Your task to perform on an android device: Open Maps and search for coffee Image 0: 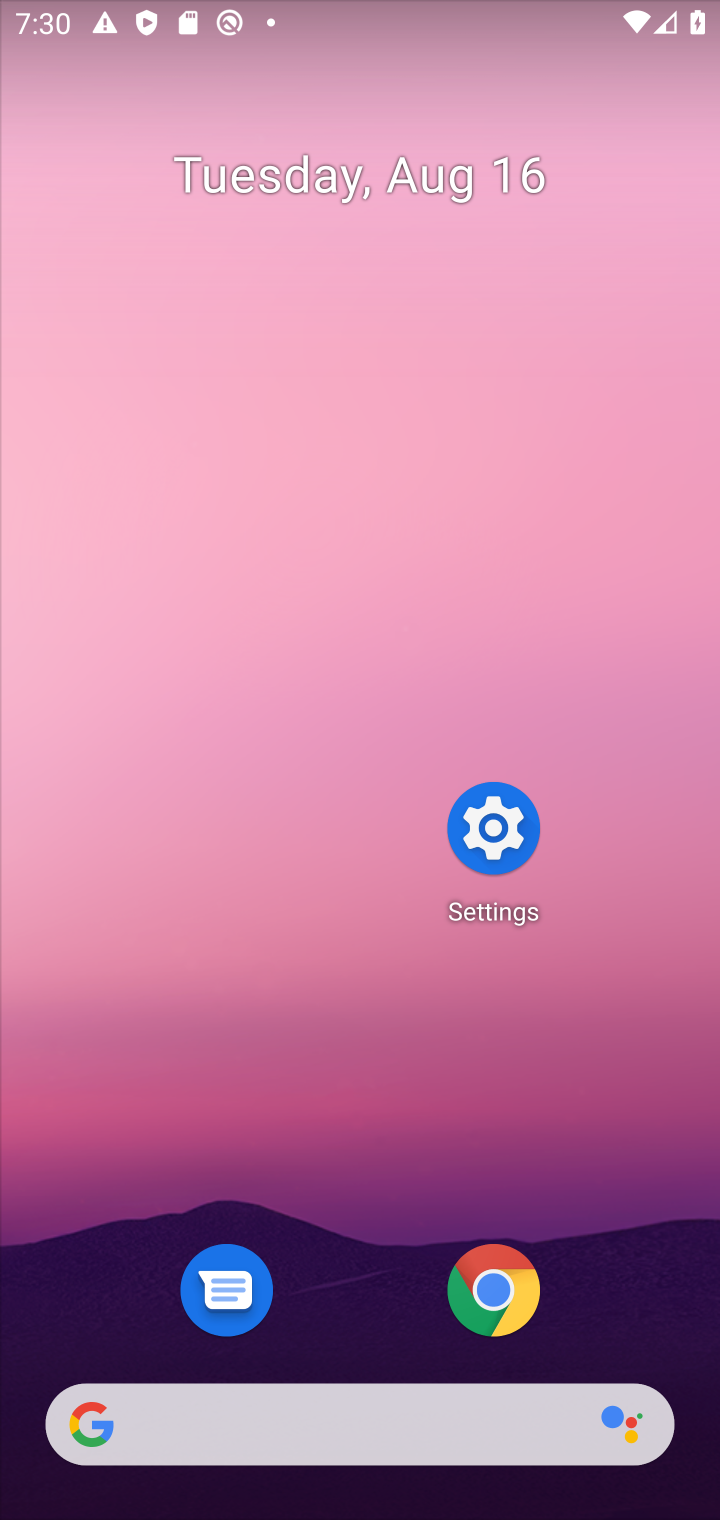
Step 0: press home button
Your task to perform on an android device: Open Maps and search for coffee Image 1: 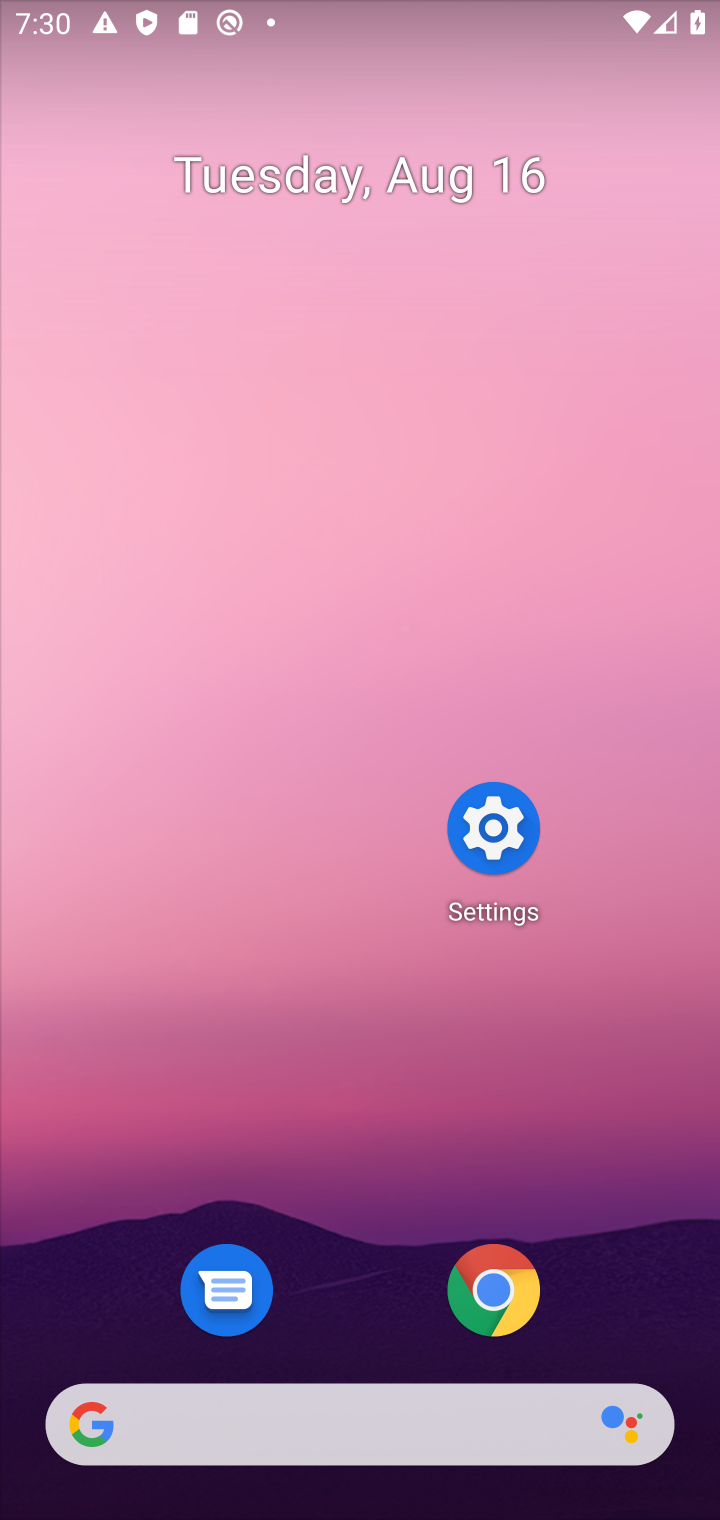
Step 1: drag from (419, 1437) to (478, 293)
Your task to perform on an android device: Open Maps and search for coffee Image 2: 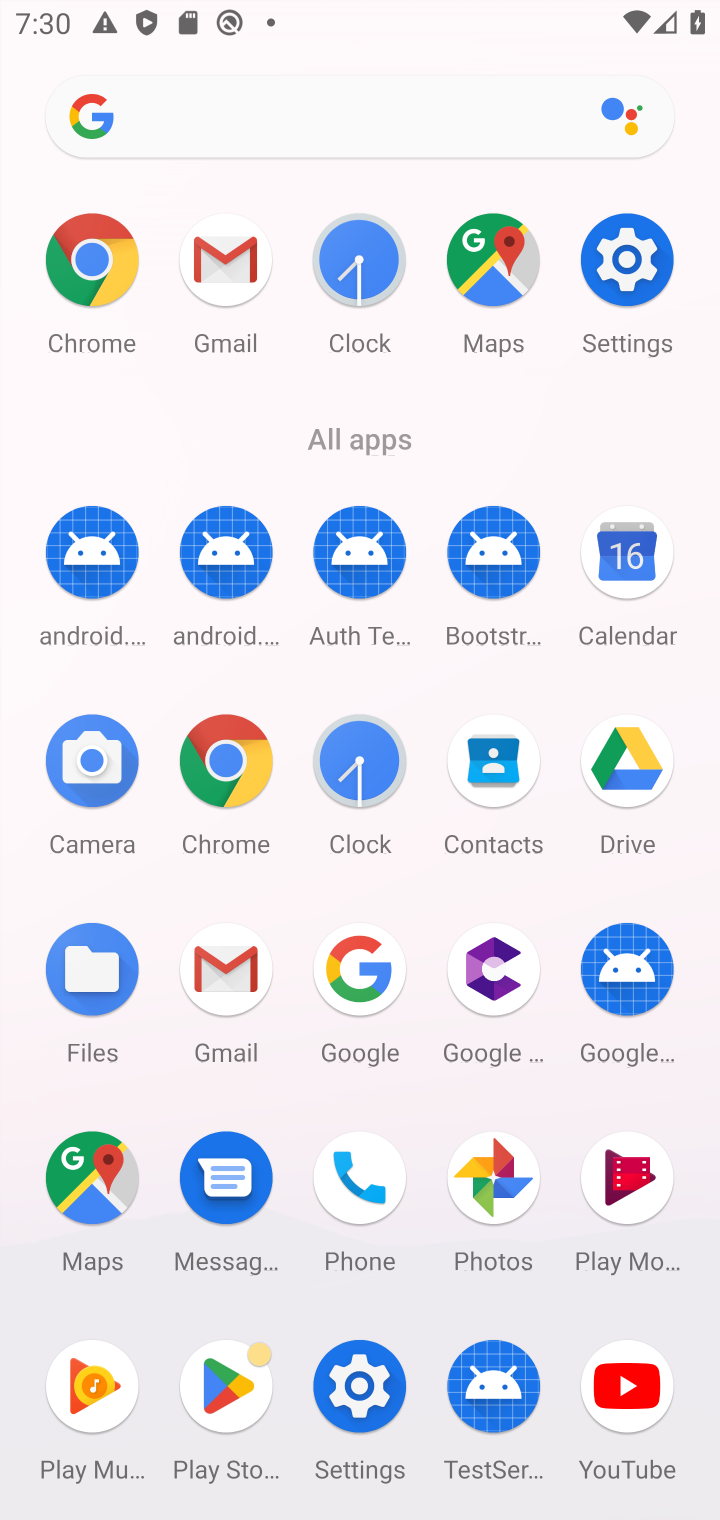
Step 2: drag from (476, 254) to (160, 834)
Your task to perform on an android device: Open Maps and search for coffee Image 3: 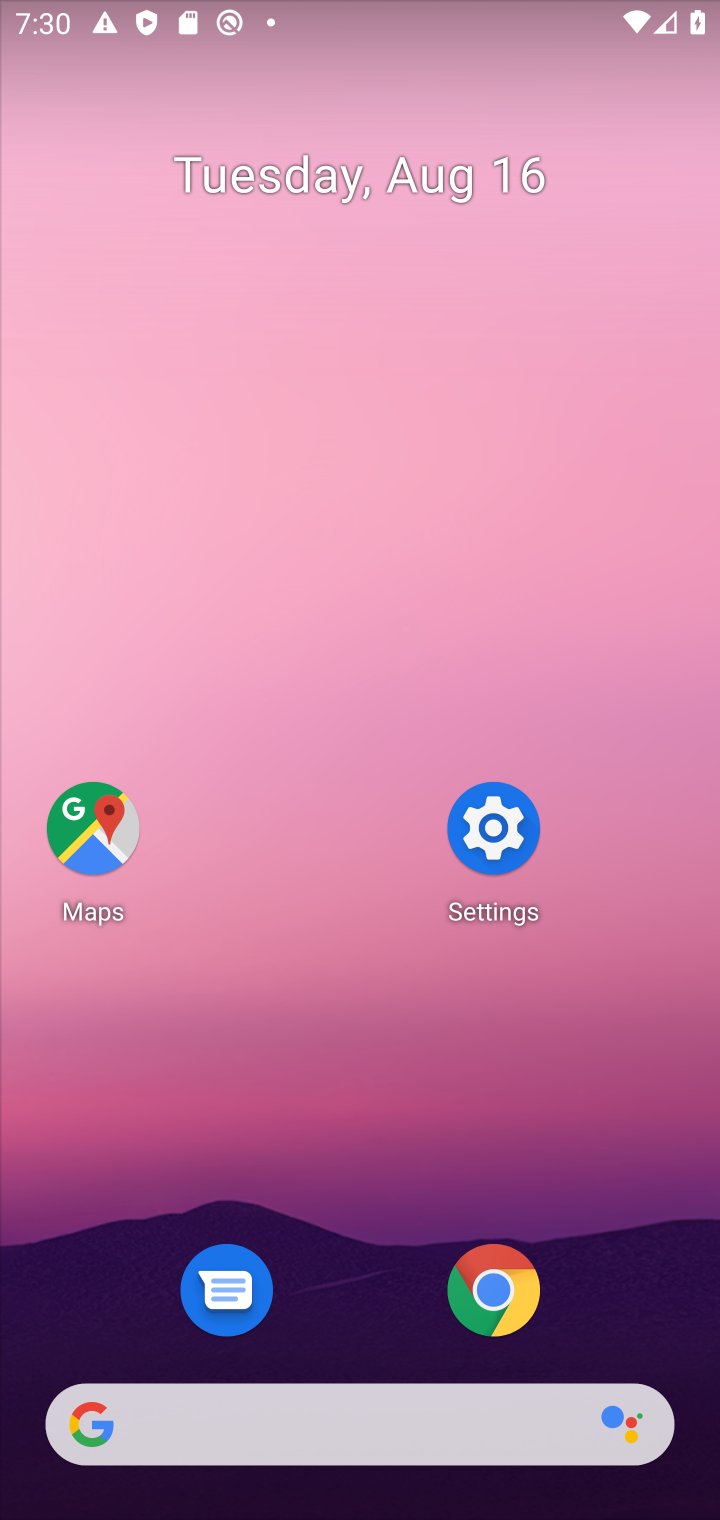
Step 3: click (86, 843)
Your task to perform on an android device: Open Maps and search for coffee Image 4: 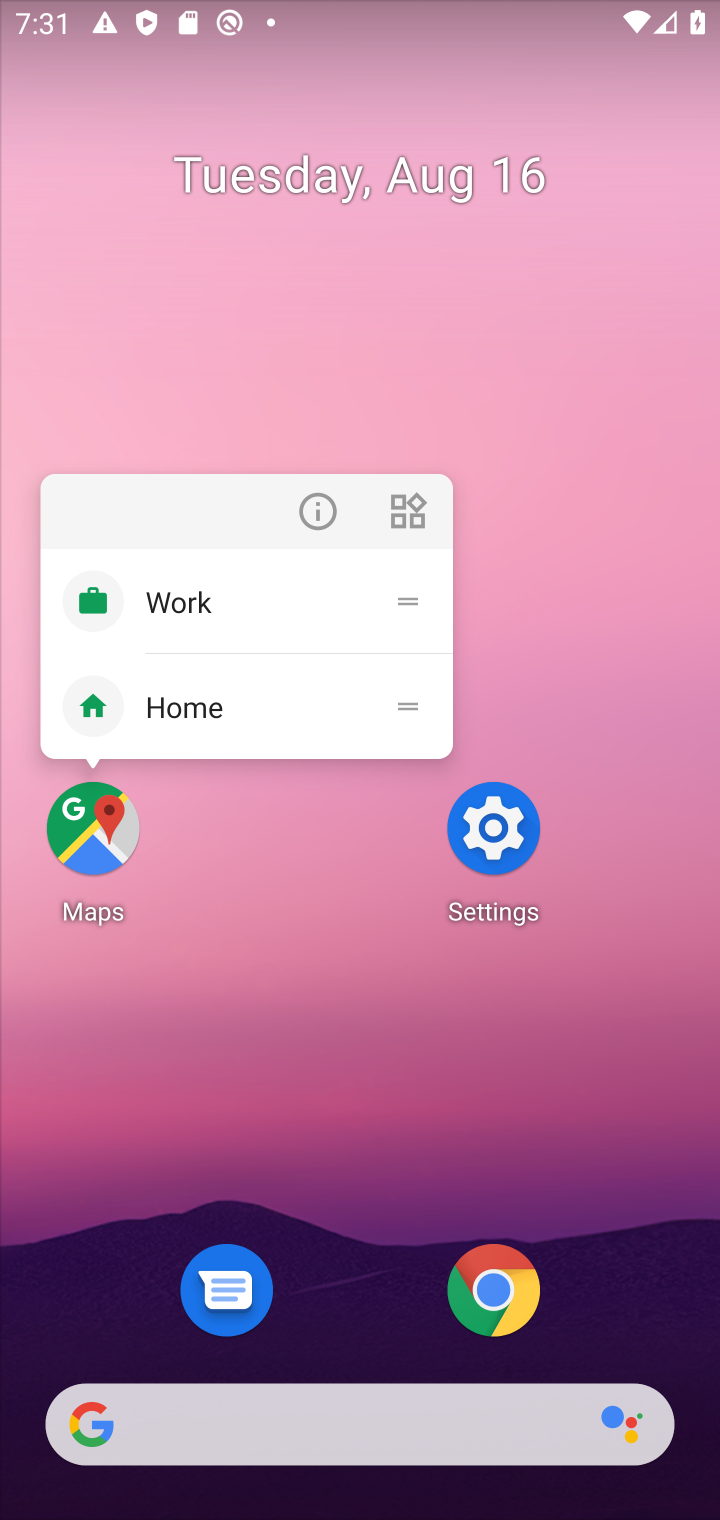
Step 4: click (104, 823)
Your task to perform on an android device: Open Maps and search for coffee Image 5: 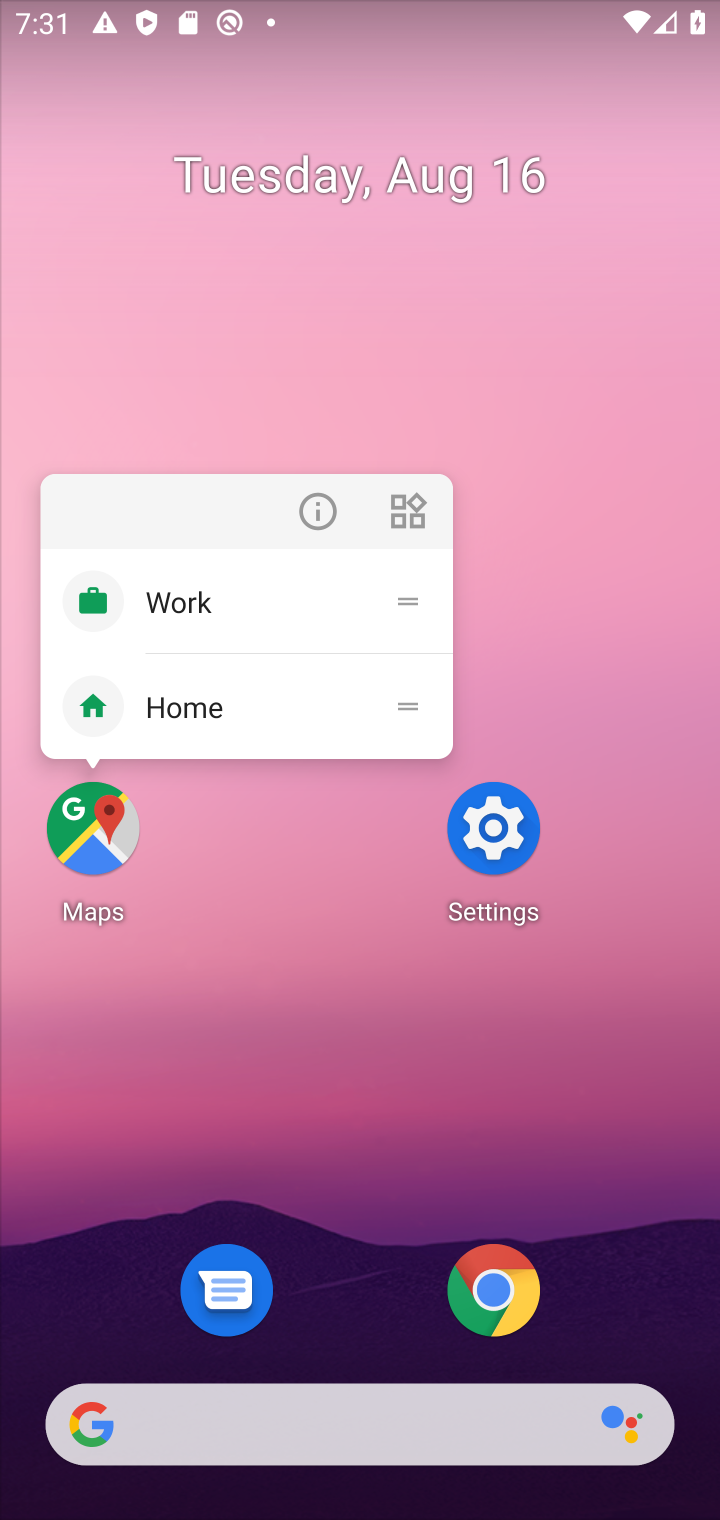
Step 5: click (78, 850)
Your task to perform on an android device: Open Maps and search for coffee Image 6: 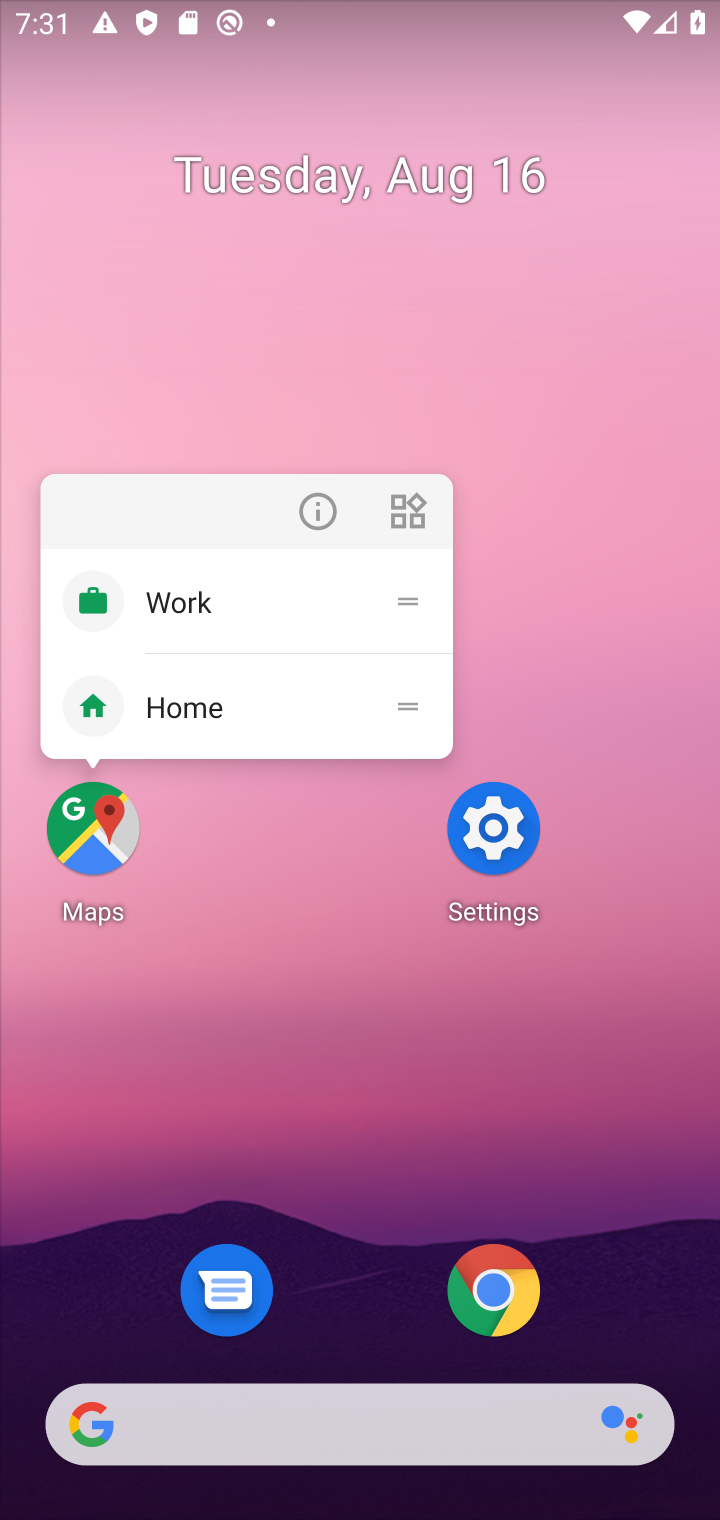
Step 6: click (88, 826)
Your task to perform on an android device: Open Maps and search for coffee Image 7: 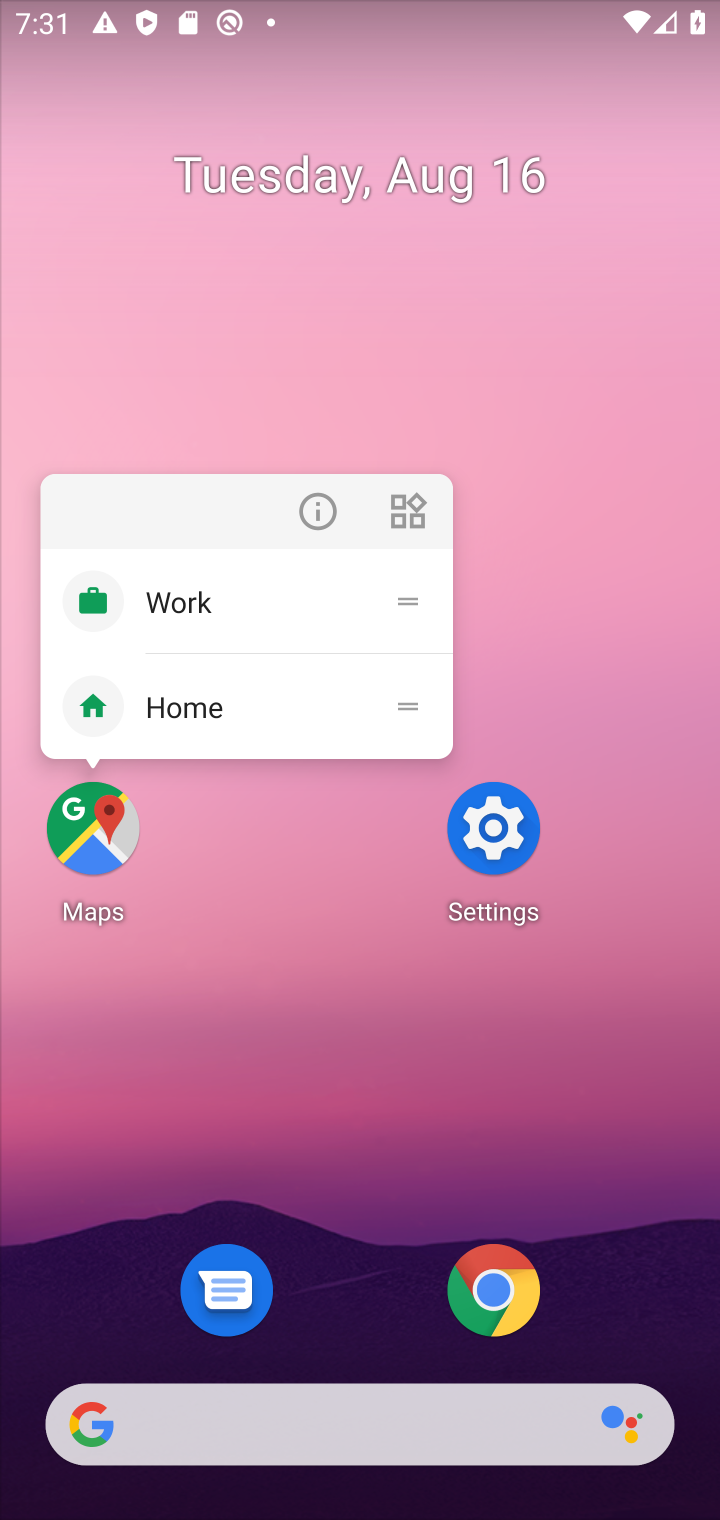
Step 7: click (76, 844)
Your task to perform on an android device: Open Maps and search for coffee Image 8: 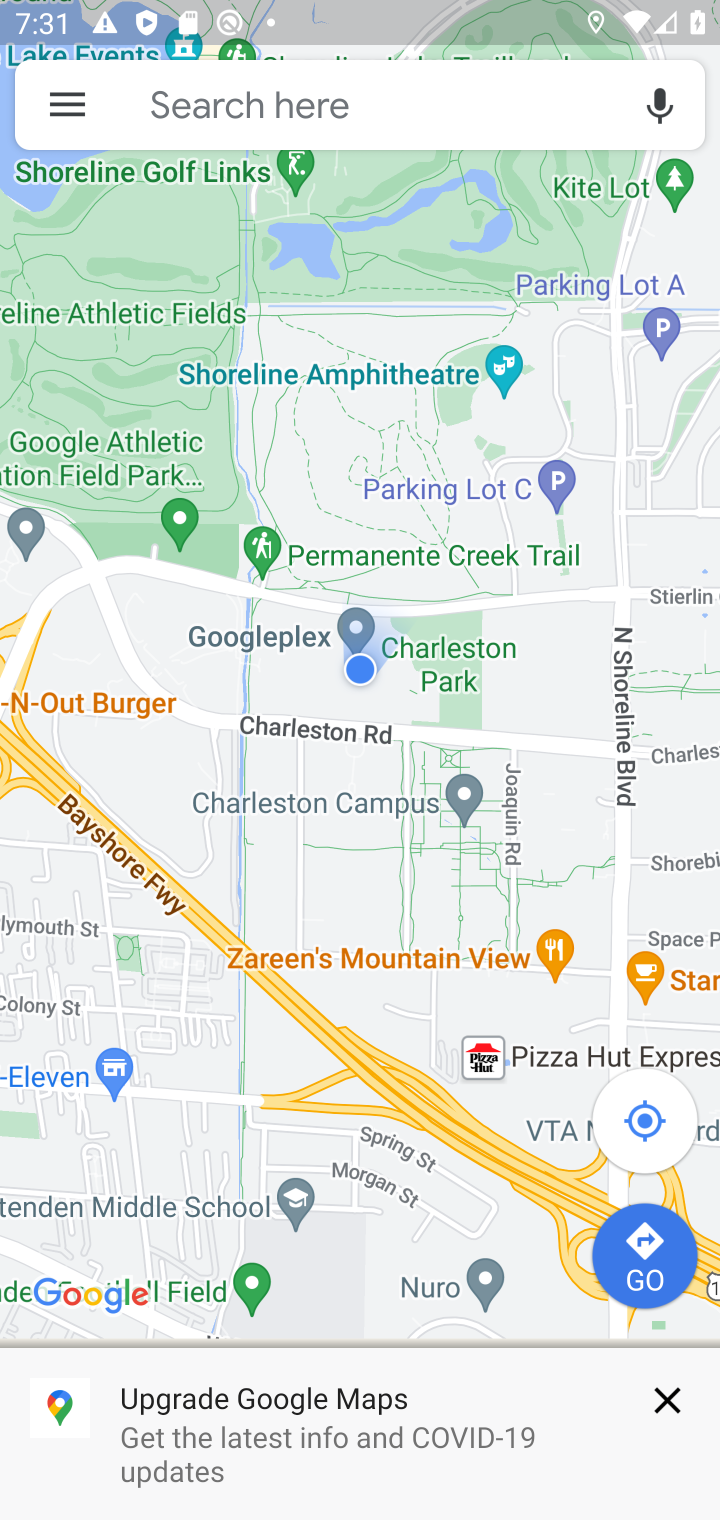
Step 8: click (370, 115)
Your task to perform on an android device: Open Maps and search for coffee Image 9: 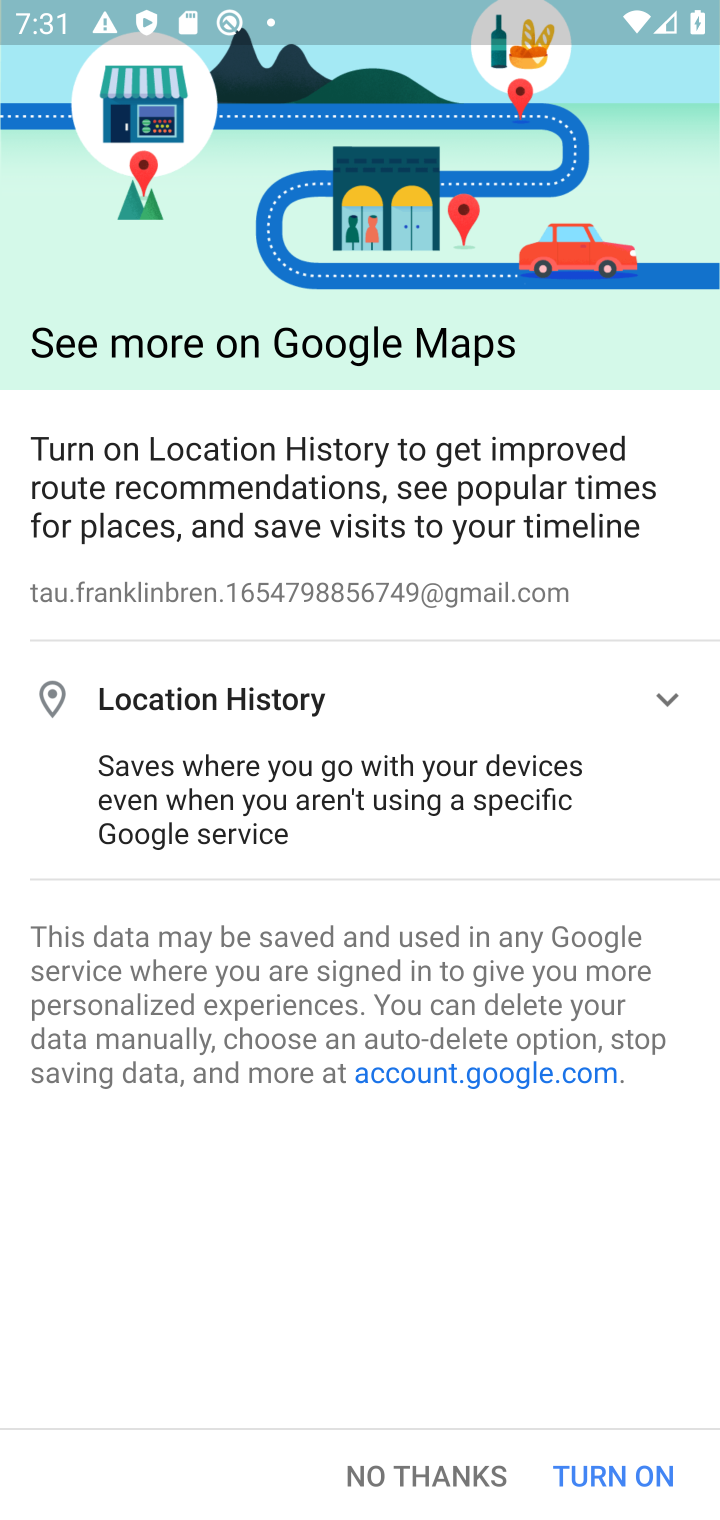
Step 9: click (434, 1472)
Your task to perform on an android device: Open Maps and search for coffee Image 10: 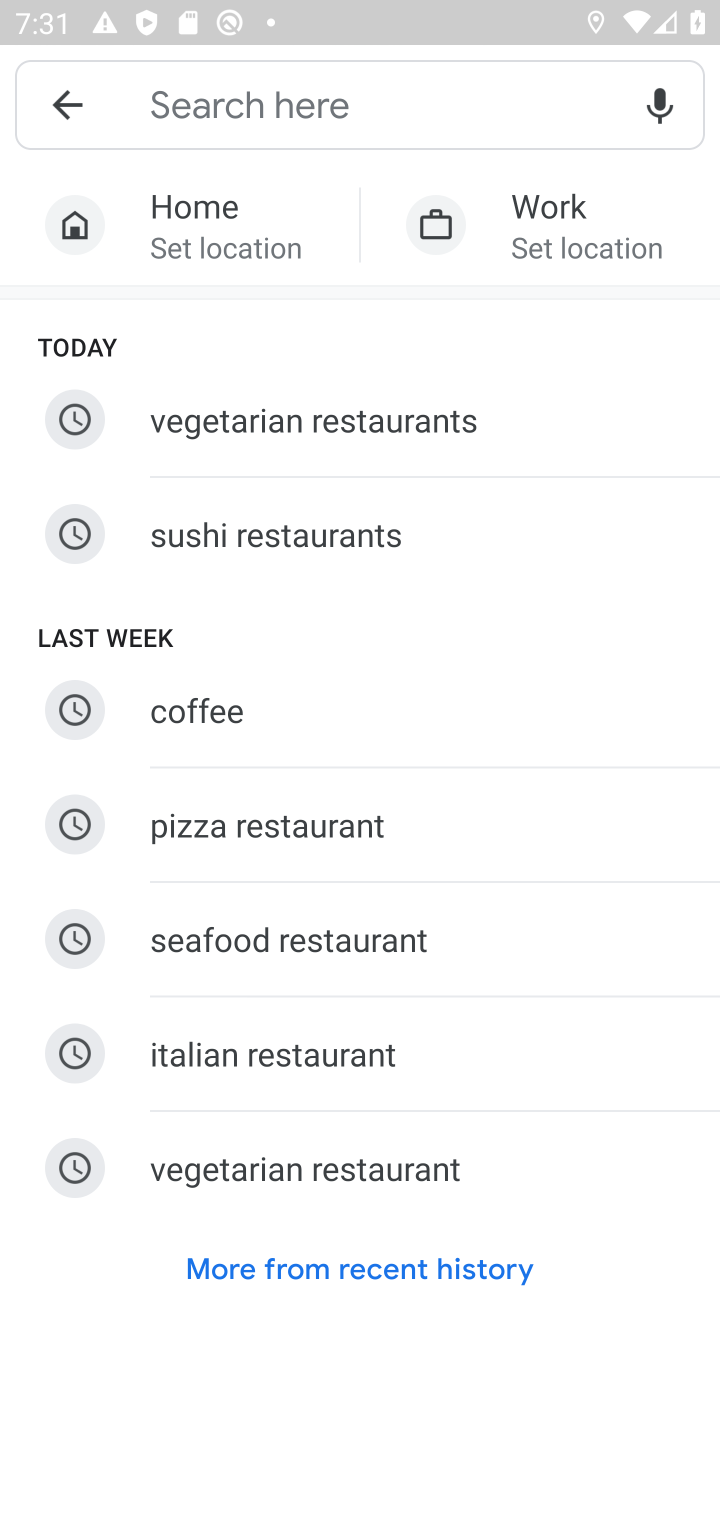
Step 10: click (192, 722)
Your task to perform on an android device: Open Maps and search for coffee Image 11: 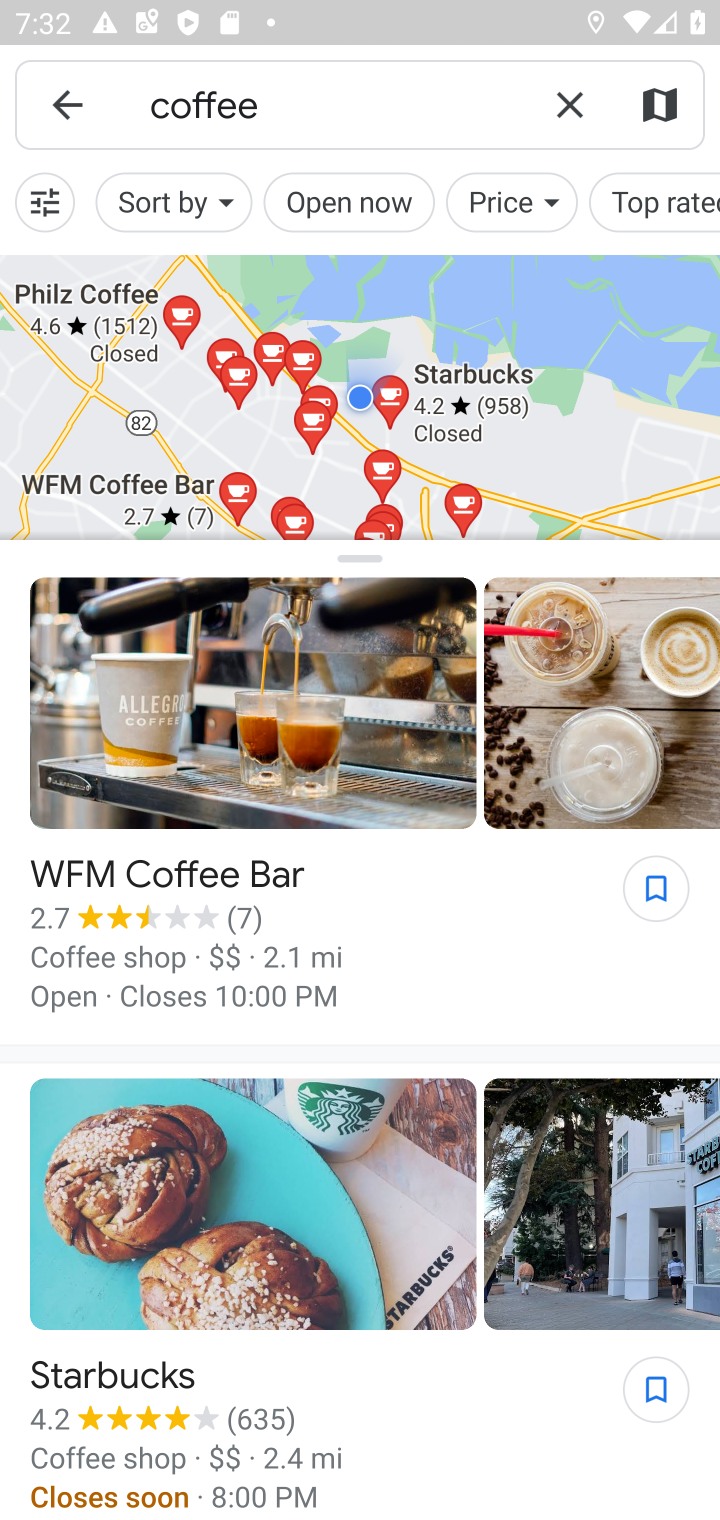
Step 11: task complete